Your task to perform on an android device: Go to Maps Image 0: 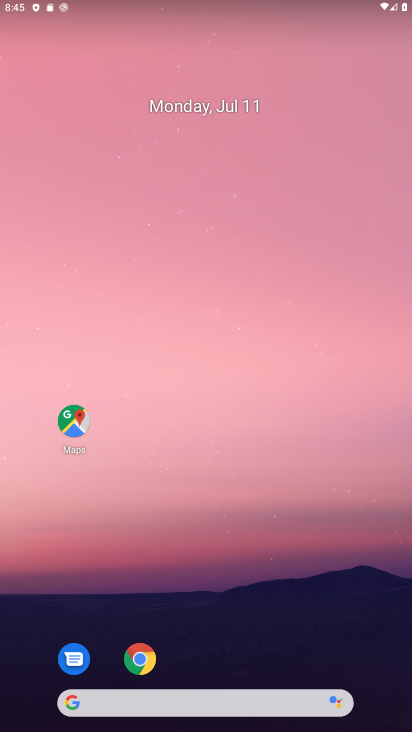
Step 0: drag from (217, 712) to (207, 190)
Your task to perform on an android device: Go to Maps Image 1: 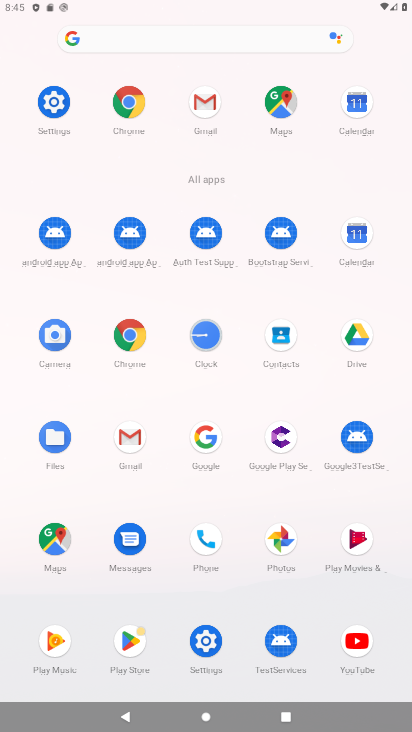
Step 1: click (286, 102)
Your task to perform on an android device: Go to Maps Image 2: 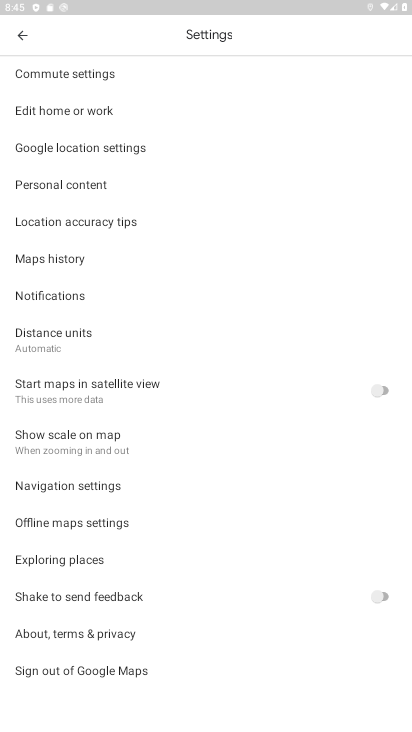
Step 2: click (26, 34)
Your task to perform on an android device: Go to Maps Image 3: 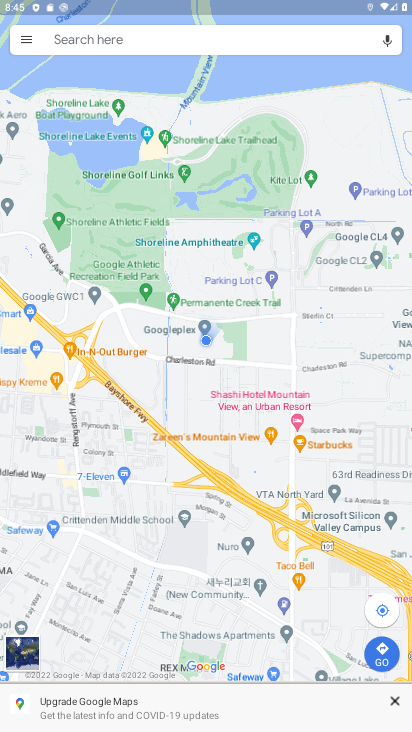
Step 3: task complete